Your task to perform on an android device: add a label to a message in the gmail app Image 0: 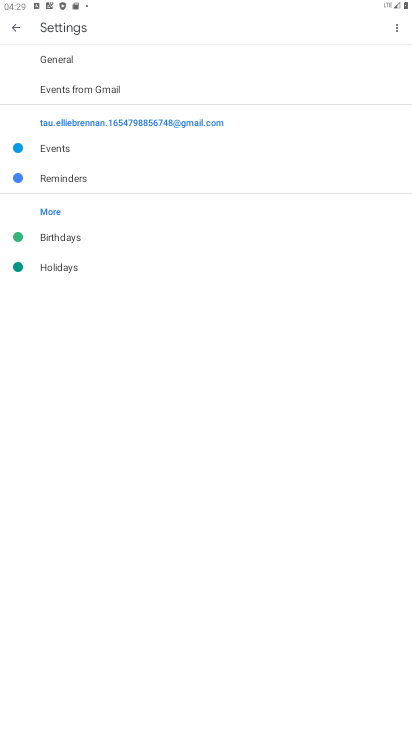
Step 0: press home button
Your task to perform on an android device: add a label to a message in the gmail app Image 1: 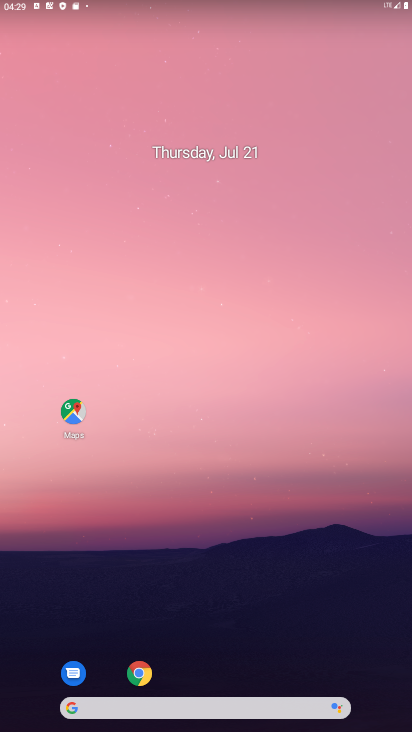
Step 1: drag from (380, 683) to (311, 214)
Your task to perform on an android device: add a label to a message in the gmail app Image 2: 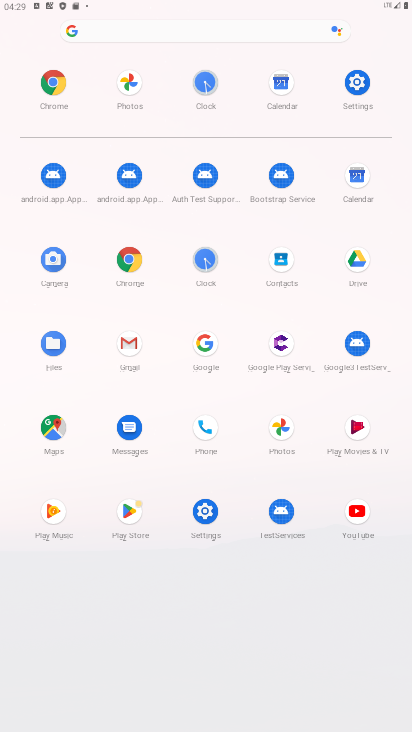
Step 2: click (128, 343)
Your task to perform on an android device: add a label to a message in the gmail app Image 3: 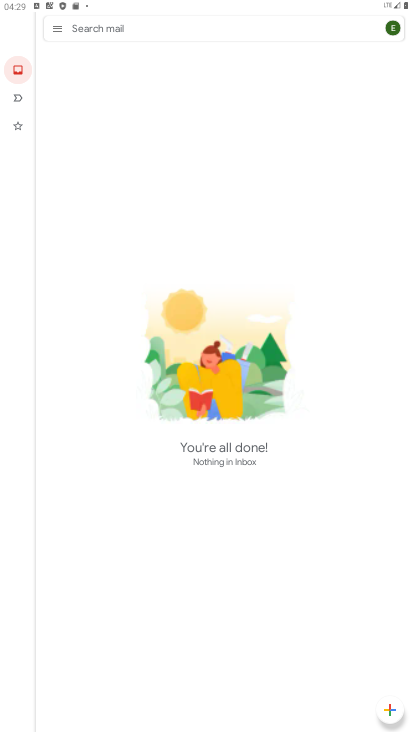
Step 3: click (55, 30)
Your task to perform on an android device: add a label to a message in the gmail app Image 4: 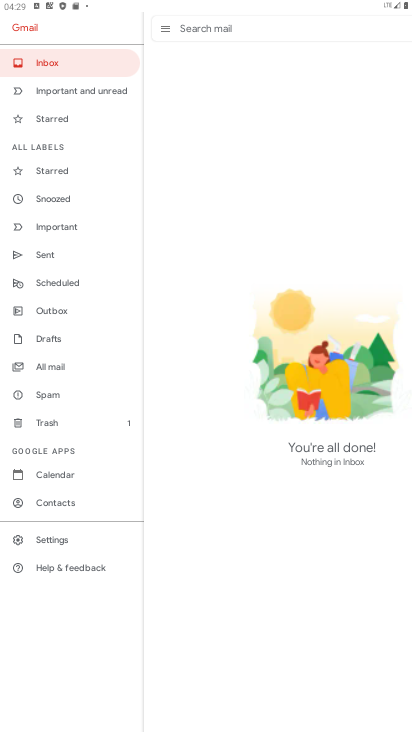
Step 4: click (54, 367)
Your task to perform on an android device: add a label to a message in the gmail app Image 5: 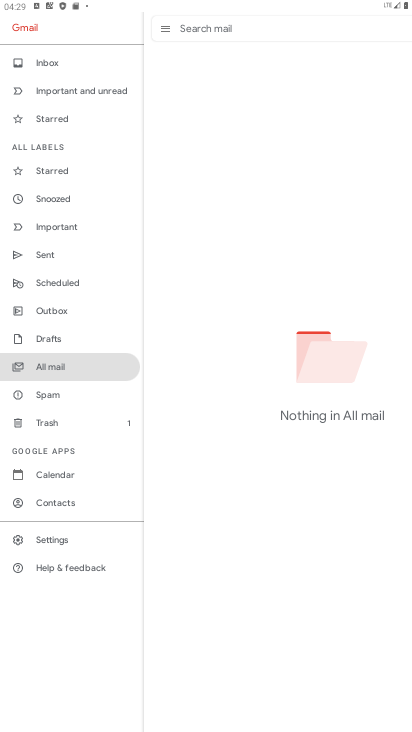
Step 5: task complete